Your task to perform on an android device: install app "DuckDuckGo Privacy Browser" Image 0: 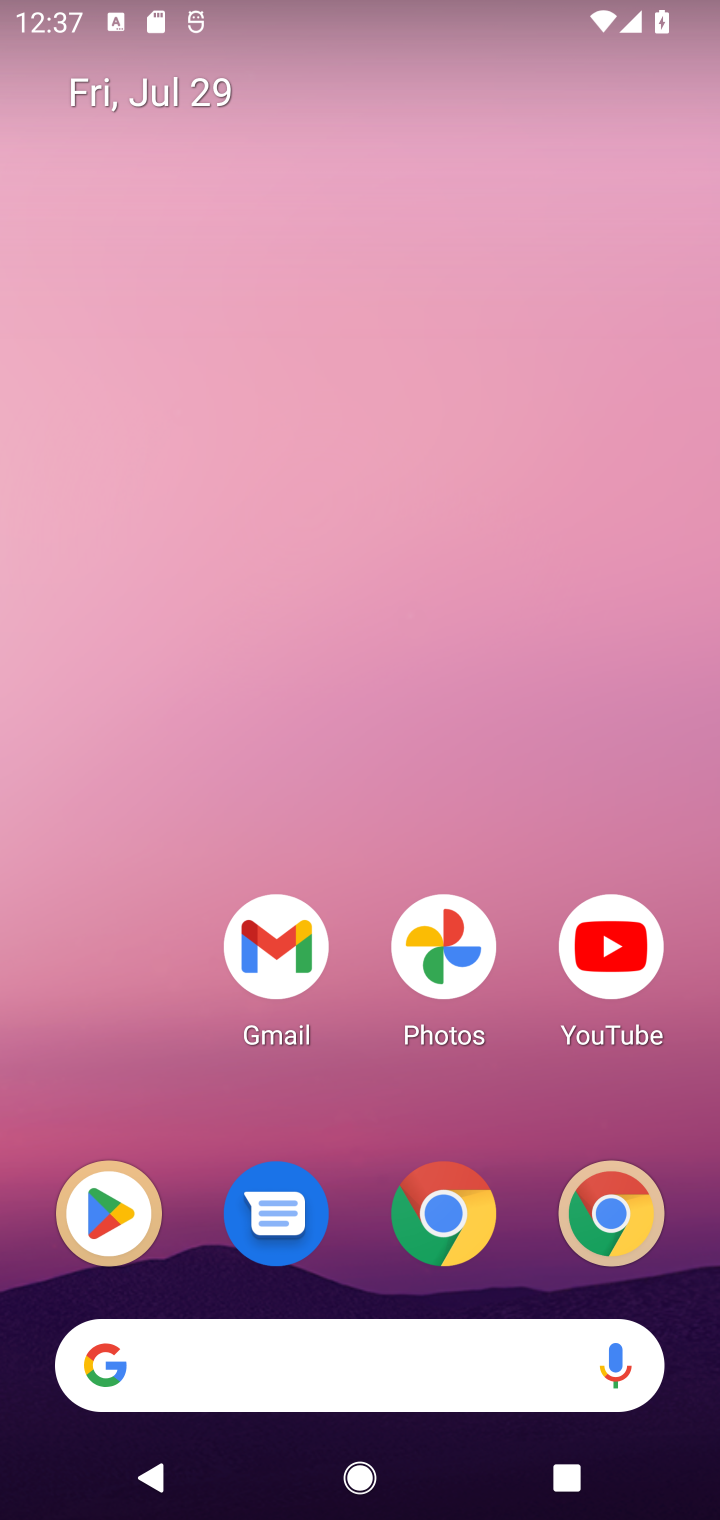
Step 0: drag from (397, 1332) to (326, 188)
Your task to perform on an android device: install app "DuckDuckGo Privacy Browser" Image 1: 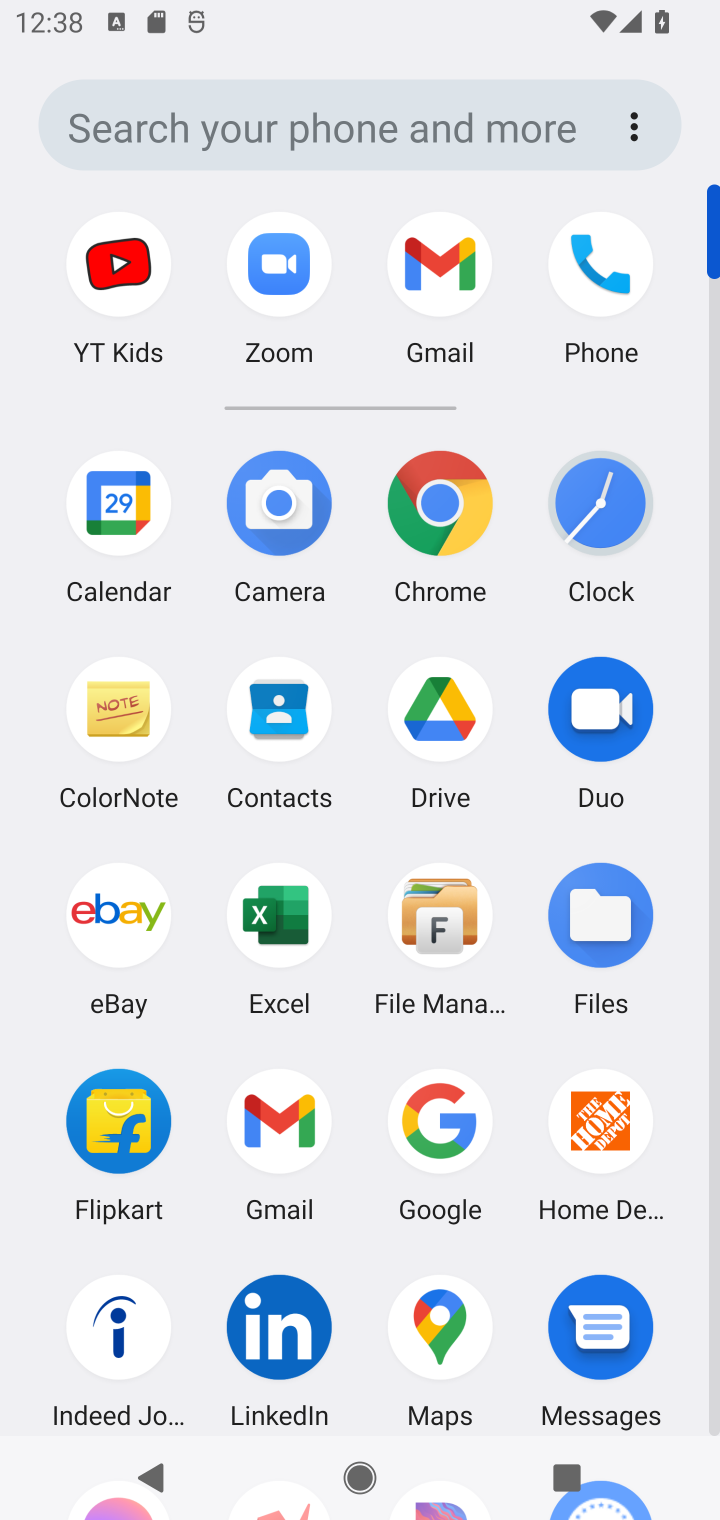
Step 1: drag from (366, 971) to (366, 459)
Your task to perform on an android device: install app "DuckDuckGo Privacy Browser" Image 2: 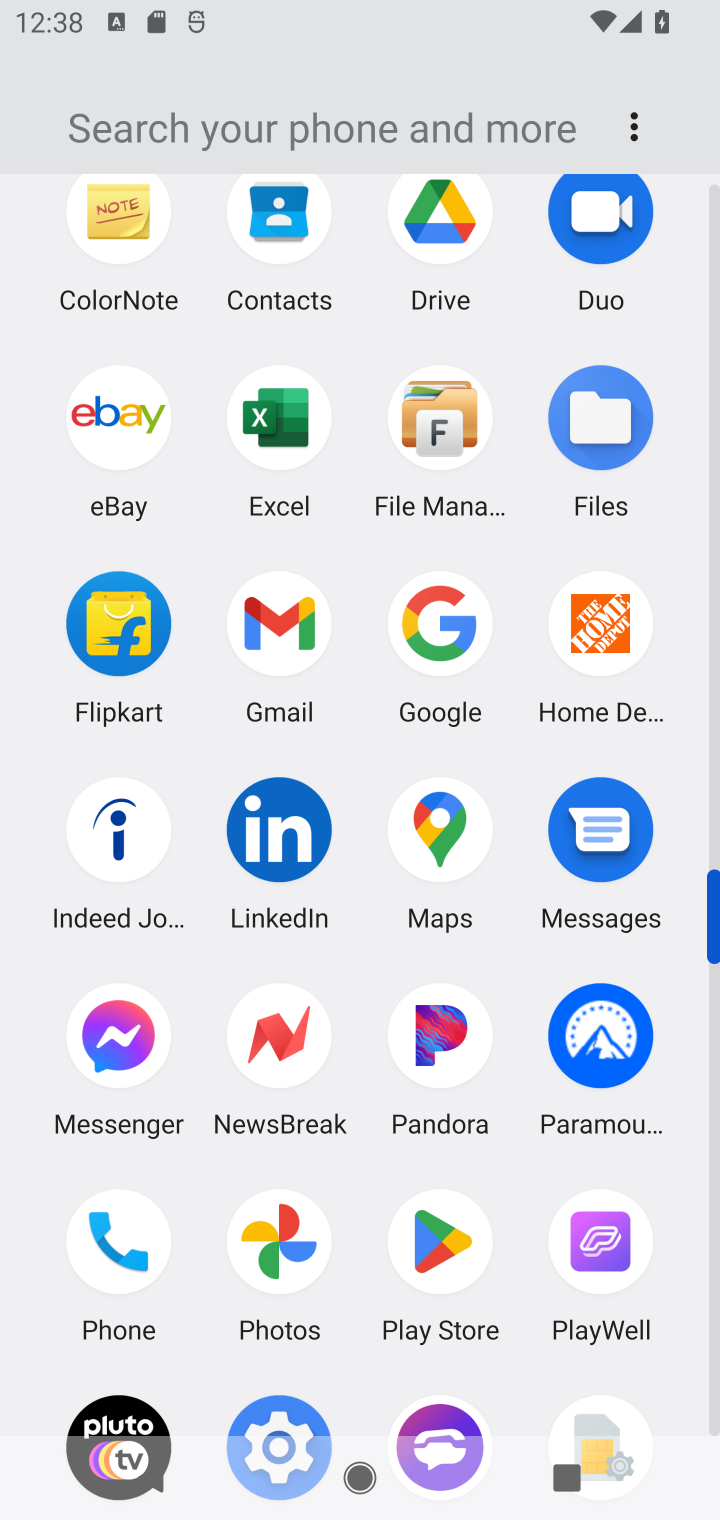
Step 2: click (463, 1242)
Your task to perform on an android device: install app "DuckDuckGo Privacy Browser" Image 3: 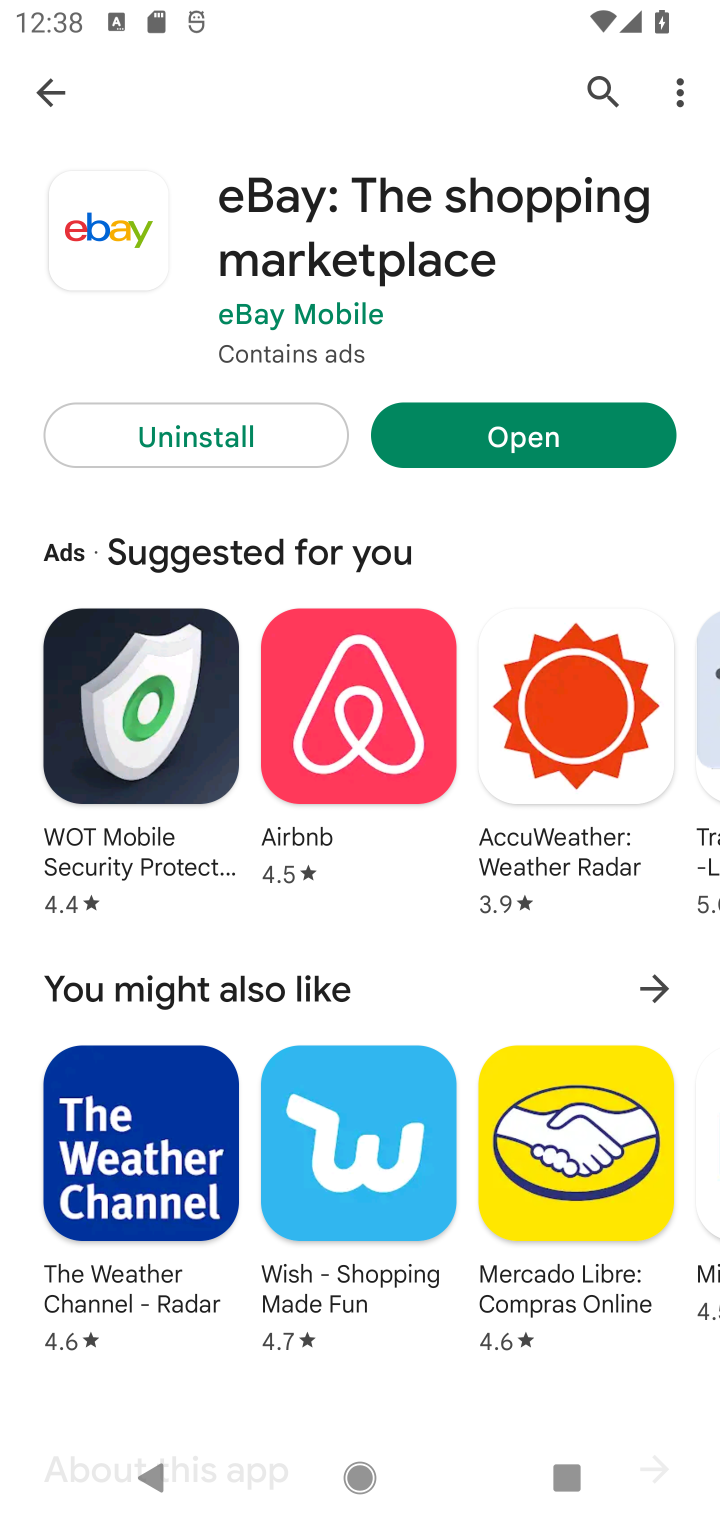
Step 3: click (602, 78)
Your task to perform on an android device: install app "DuckDuckGo Privacy Browser" Image 4: 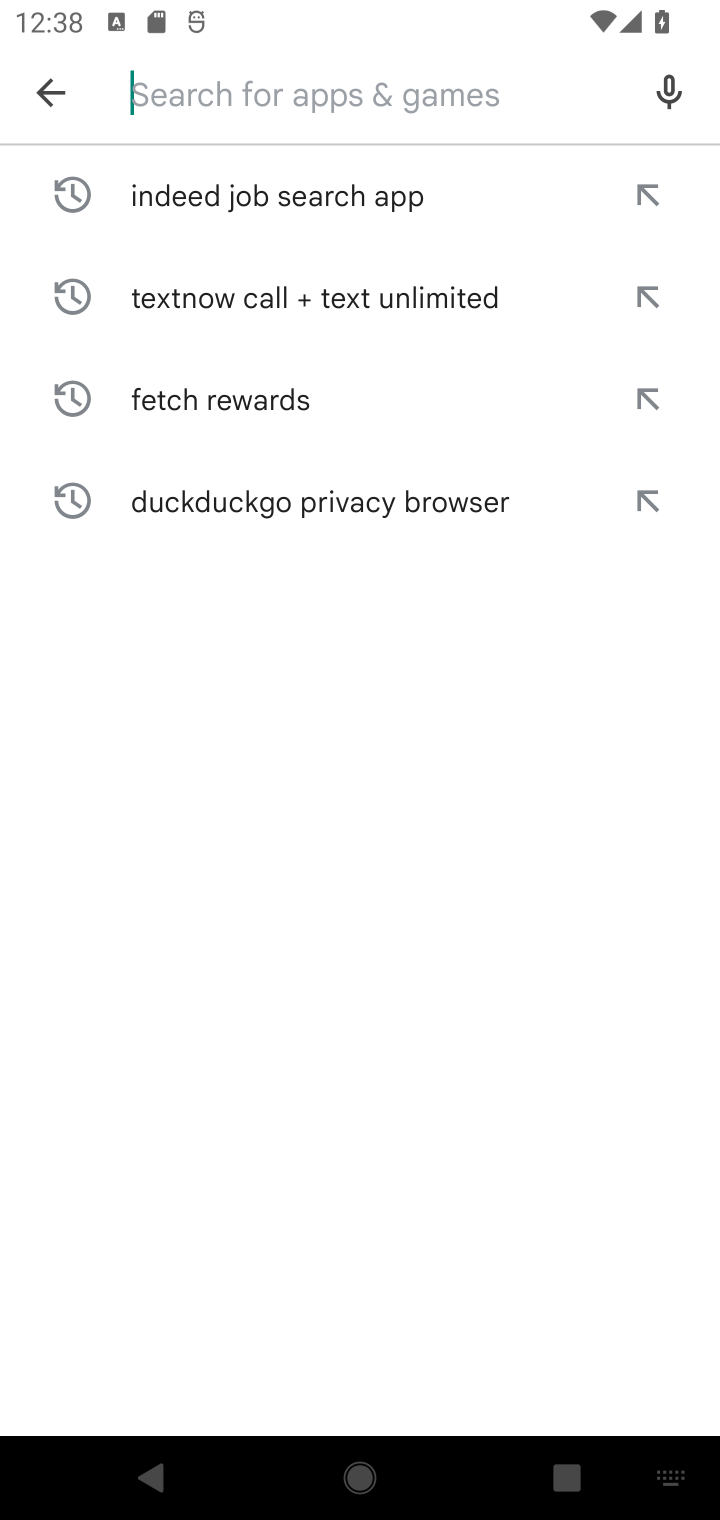
Step 4: type "DuckDuckGo Privacy Browser"
Your task to perform on an android device: install app "DuckDuckGo Privacy Browser" Image 5: 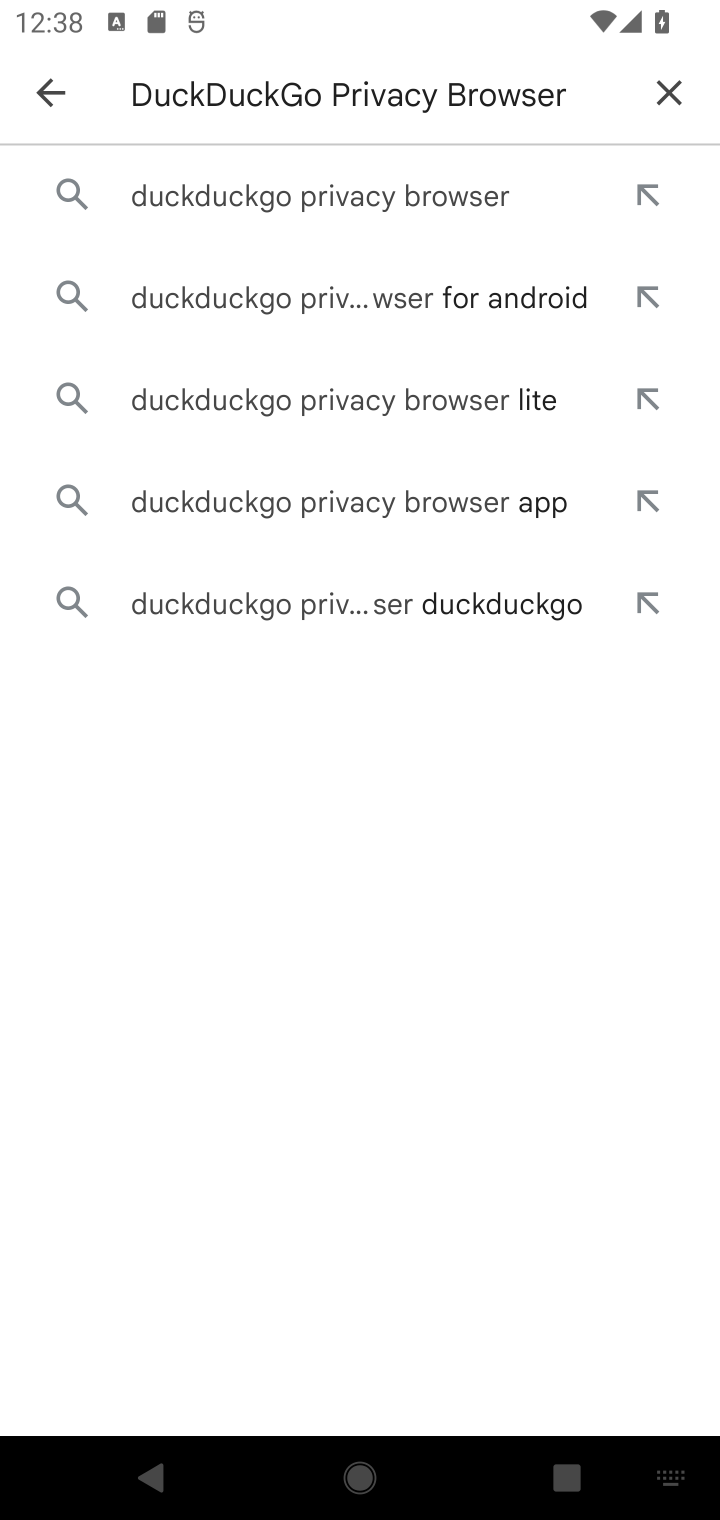
Step 5: click (328, 181)
Your task to perform on an android device: install app "DuckDuckGo Privacy Browser" Image 6: 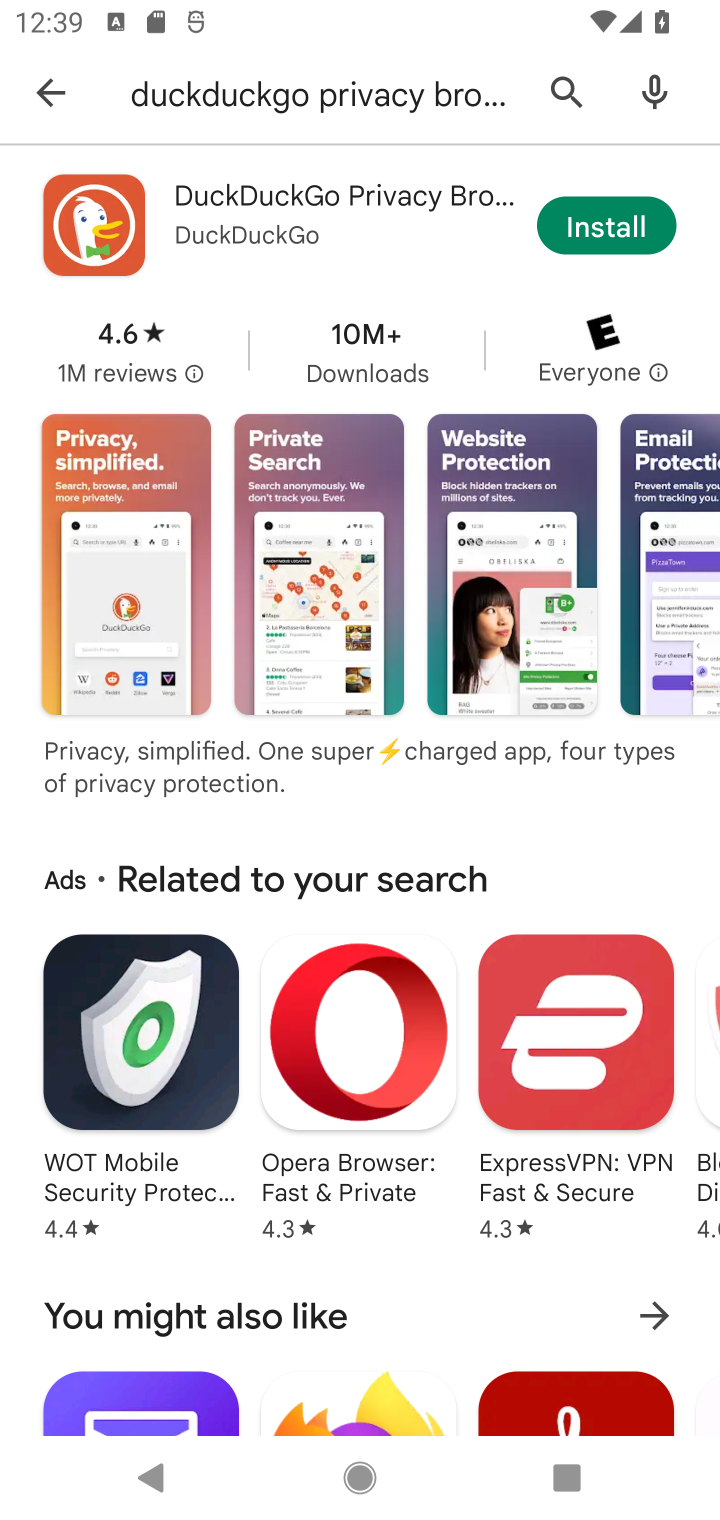
Step 6: click (613, 223)
Your task to perform on an android device: install app "DuckDuckGo Privacy Browser" Image 7: 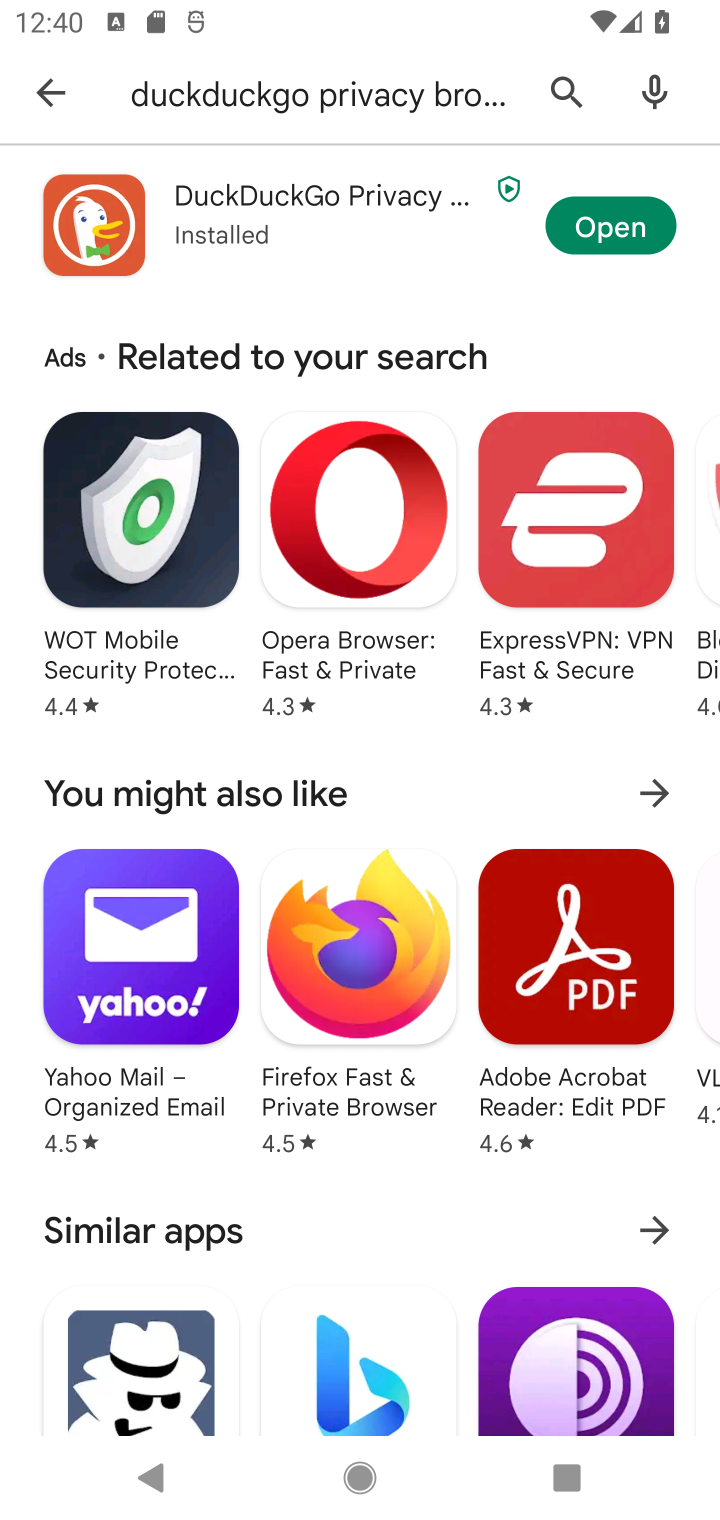
Step 7: task complete